Your task to perform on an android device: turn off smart reply in the gmail app Image 0: 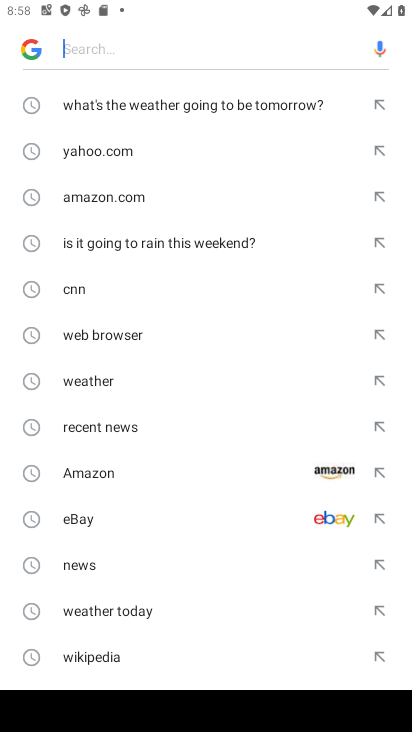
Step 0: press home button
Your task to perform on an android device: turn off smart reply in the gmail app Image 1: 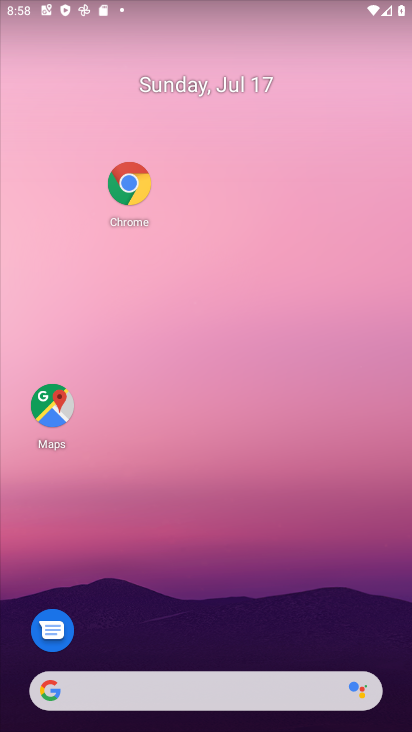
Step 1: drag from (156, 640) to (232, 15)
Your task to perform on an android device: turn off smart reply in the gmail app Image 2: 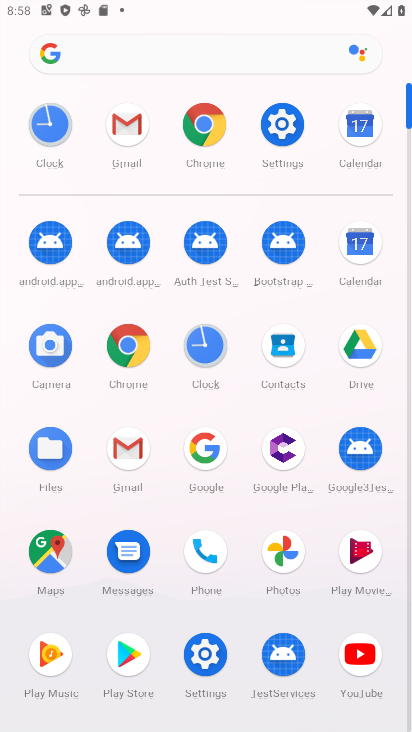
Step 2: click (140, 126)
Your task to perform on an android device: turn off smart reply in the gmail app Image 3: 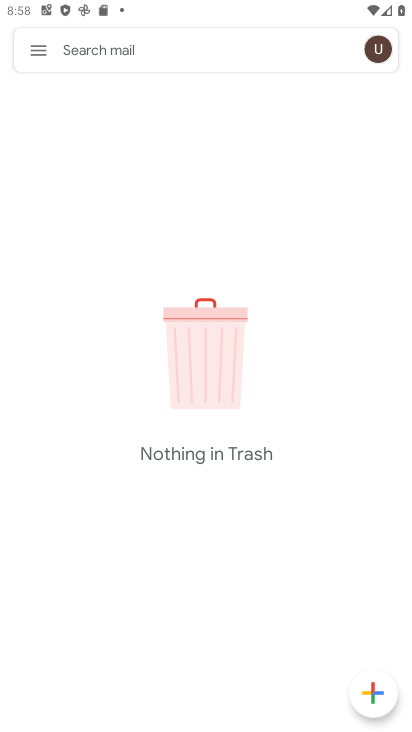
Step 3: click (42, 47)
Your task to perform on an android device: turn off smart reply in the gmail app Image 4: 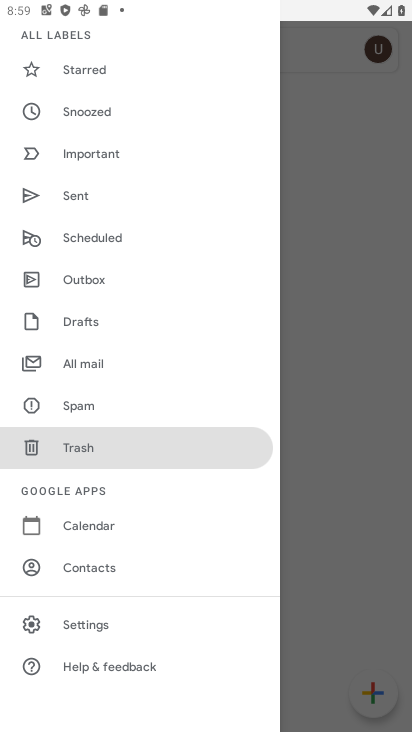
Step 4: click (142, 621)
Your task to perform on an android device: turn off smart reply in the gmail app Image 5: 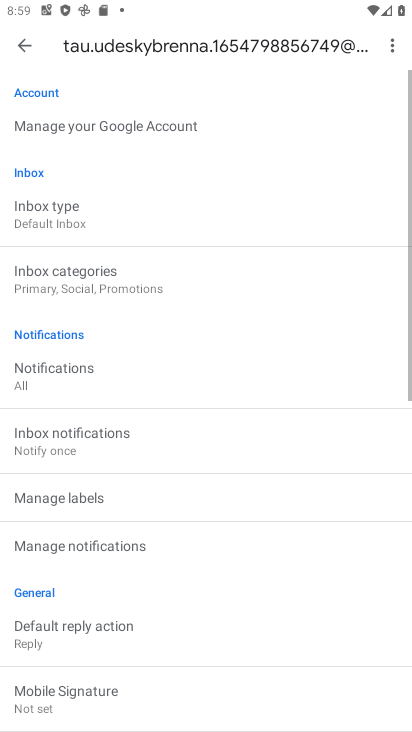
Step 5: drag from (307, 663) to (275, 65)
Your task to perform on an android device: turn off smart reply in the gmail app Image 6: 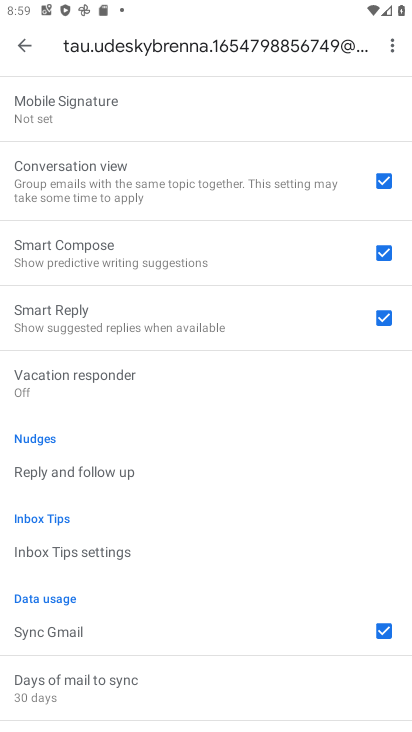
Step 6: click (386, 311)
Your task to perform on an android device: turn off smart reply in the gmail app Image 7: 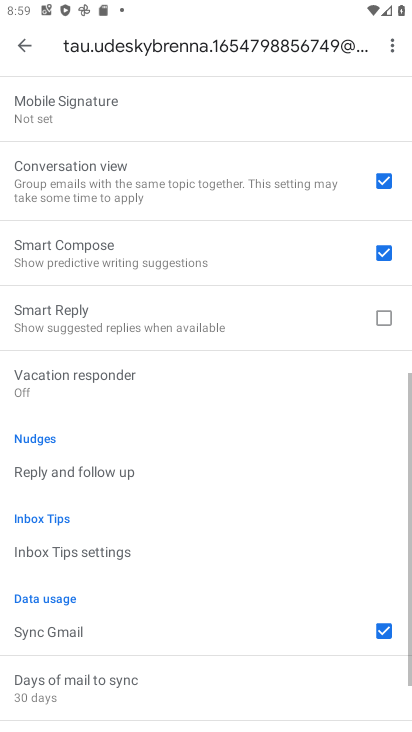
Step 7: task complete